Your task to perform on an android device: Show me recent news Image 0: 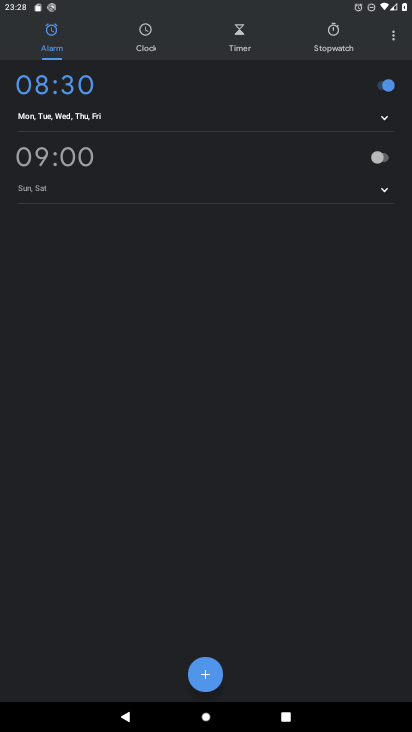
Step 0: drag from (188, 649) to (238, 154)
Your task to perform on an android device: Show me recent news Image 1: 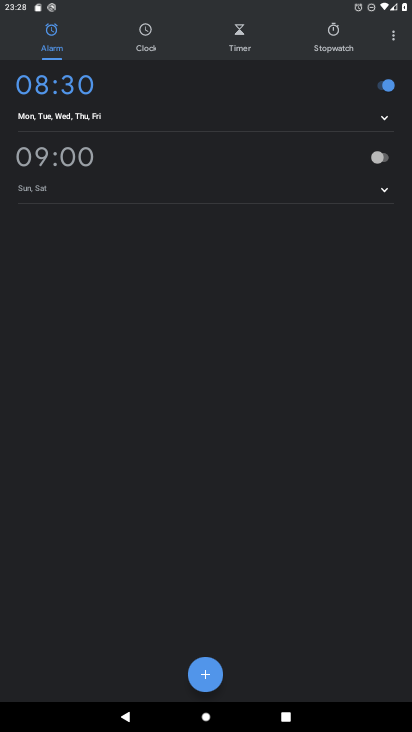
Step 1: press home button
Your task to perform on an android device: Show me recent news Image 2: 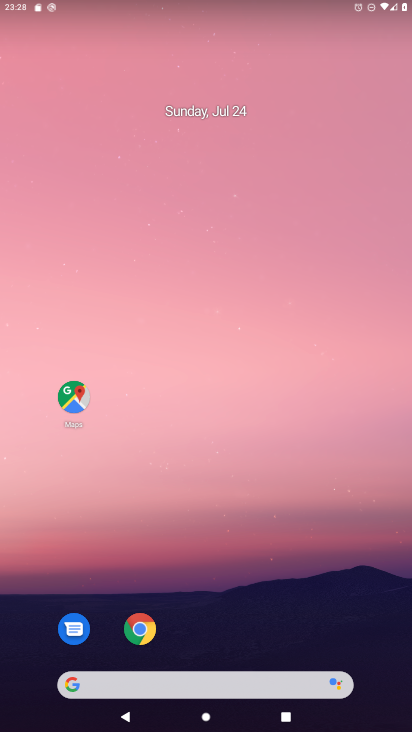
Step 2: drag from (199, 661) to (212, 135)
Your task to perform on an android device: Show me recent news Image 3: 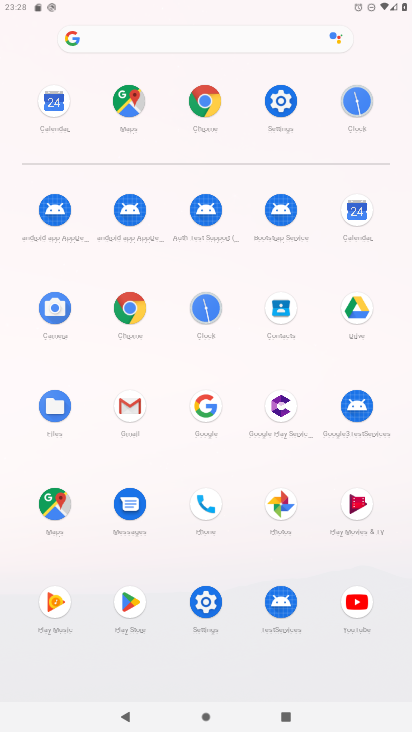
Step 3: click (217, 38)
Your task to perform on an android device: Show me recent news Image 4: 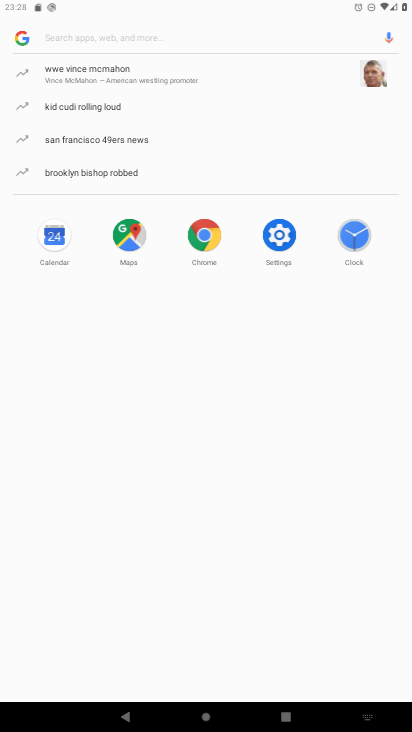
Step 4: drag from (148, 567) to (188, 292)
Your task to perform on an android device: Show me recent news Image 5: 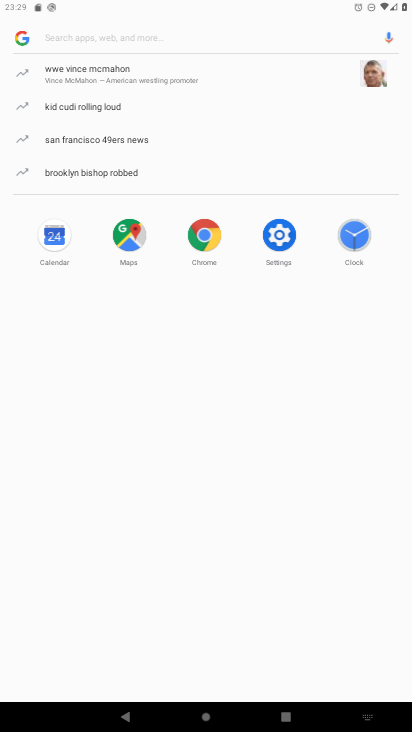
Step 5: click (96, 31)
Your task to perform on an android device: Show me recent news Image 6: 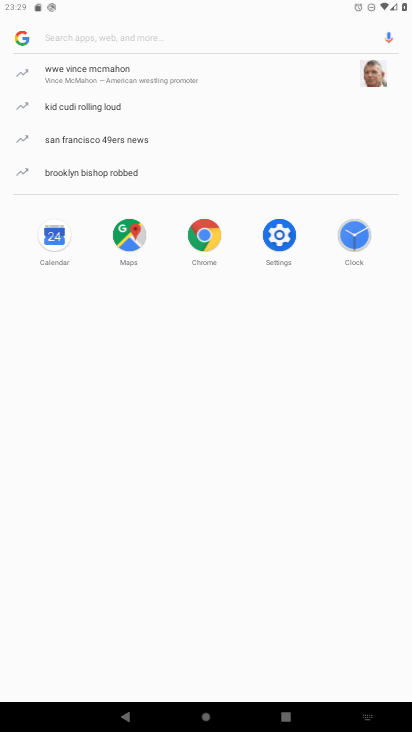
Step 6: type "recent news"
Your task to perform on an android device: Show me recent news Image 7: 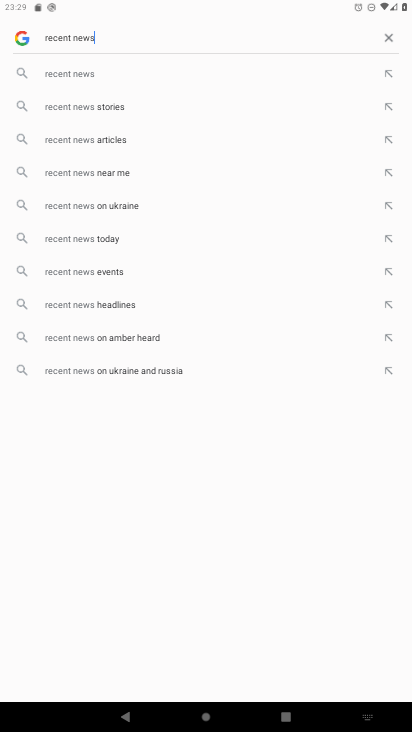
Step 7: type ""
Your task to perform on an android device: Show me recent news Image 8: 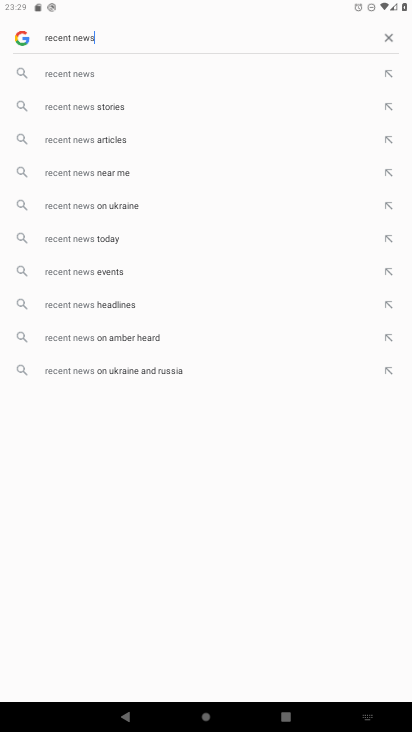
Step 8: click (237, 257)
Your task to perform on an android device: Show me recent news Image 9: 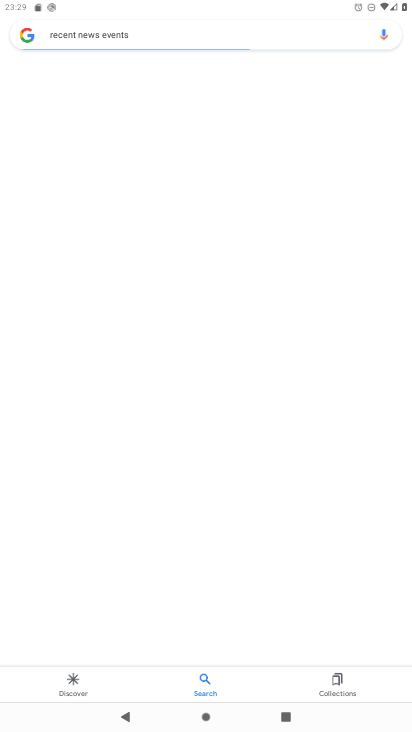
Step 9: click (107, 74)
Your task to perform on an android device: Show me recent news Image 10: 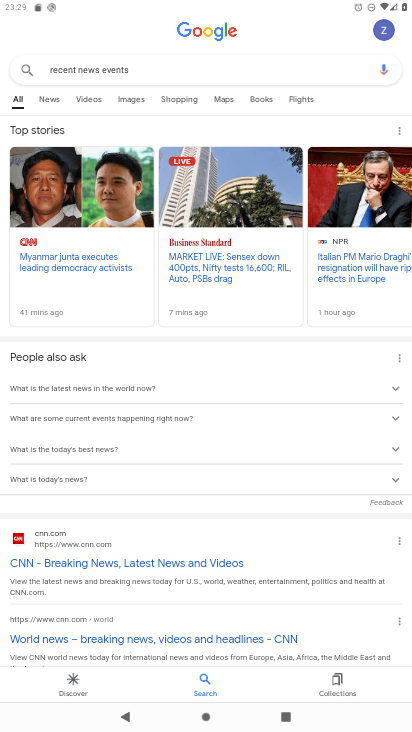
Step 10: task complete